Your task to perform on an android device: Search for seafood restaurants on Google Maps Image 0: 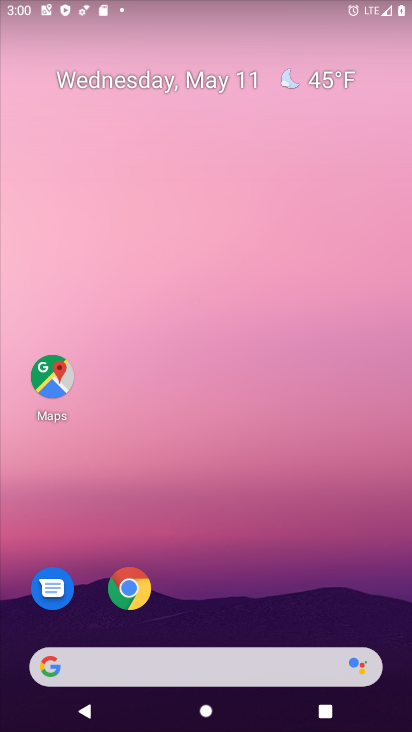
Step 0: click (49, 390)
Your task to perform on an android device: Search for seafood restaurants on Google Maps Image 1: 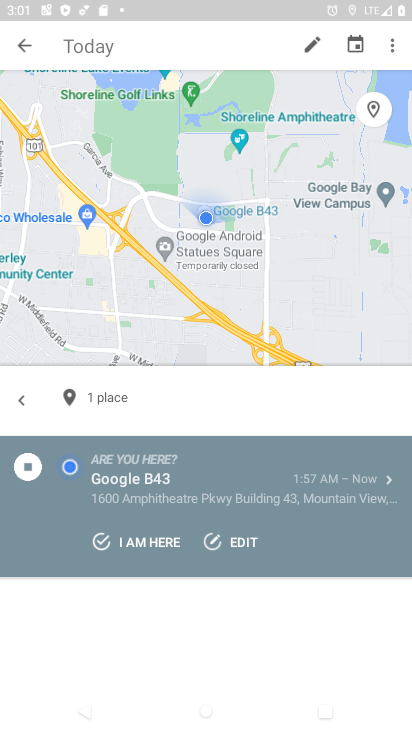
Step 1: click (26, 53)
Your task to perform on an android device: Search for seafood restaurants on Google Maps Image 2: 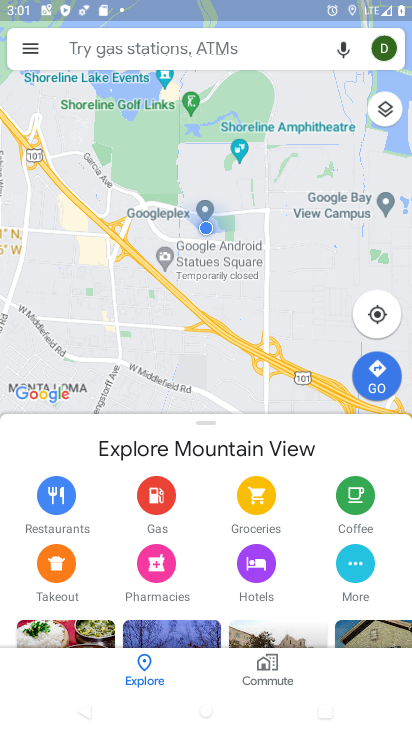
Step 2: click (164, 52)
Your task to perform on an android device: Search for seafood restaurants on Google Maps Image 3: 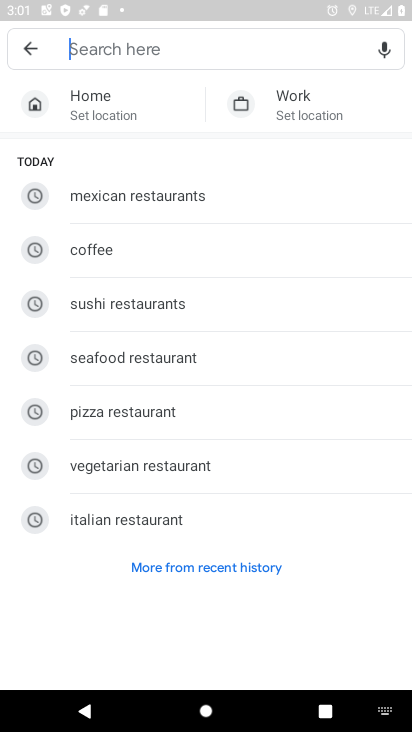
Step 3: type "seafood restaurants"
Your task to perform on an android device: Search for seafood restaurants on Google Maps Image 4: 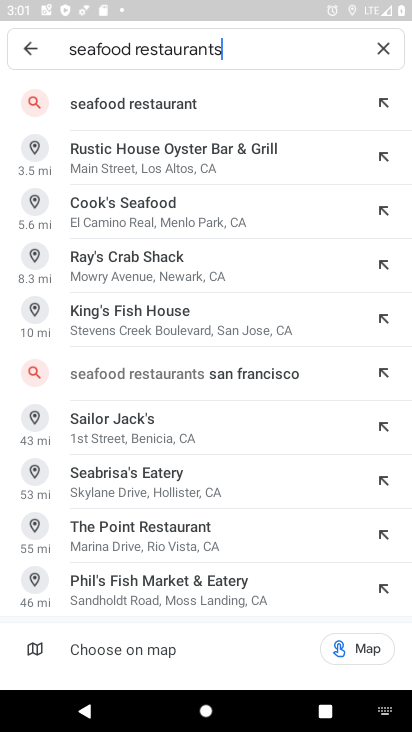
Step 4: click (116, 101)
Your task to perform on an android device: Search for seafood restaurants on Google Maps Image 5: 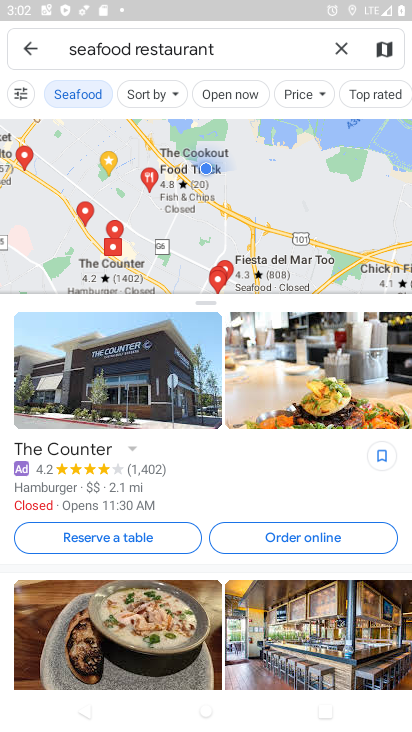
Step 5: task complete